Your task to perform on an android device: turn notification dots off Image 0: 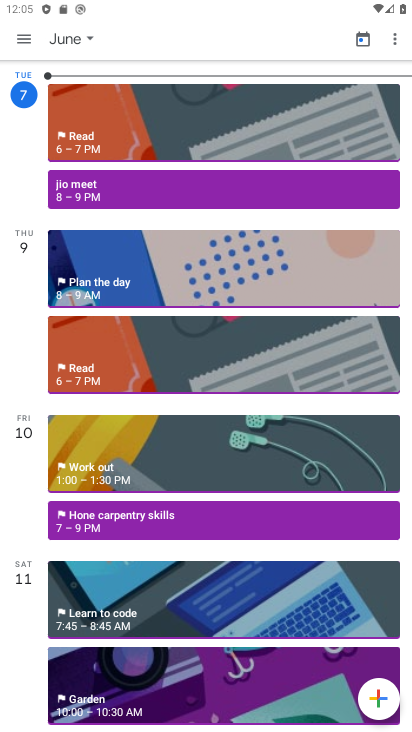
Step 0: press home button
Your task to perform on an android device: turn notification dots off Image 1: 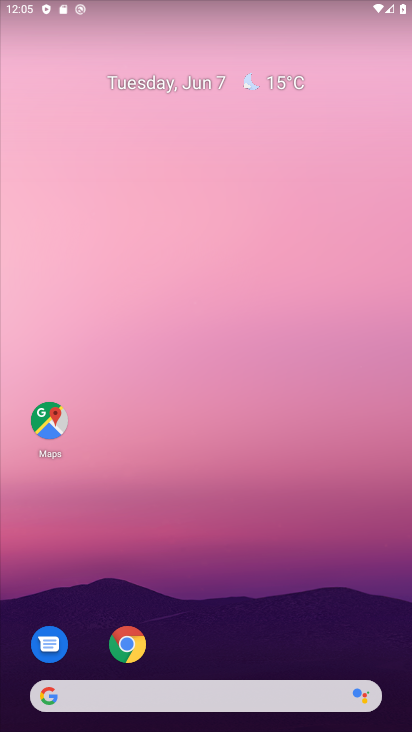
Step 1: drag from (296, 604) to (209, 188)
Your task to perform on an android device: turn notification dots off Image 2: 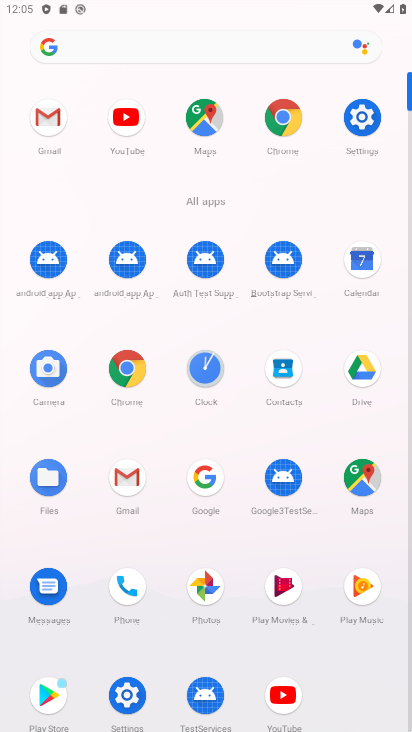
Step 2: click (351, 120)
Your task to perform on an android device: turn notification dots off Image 3: 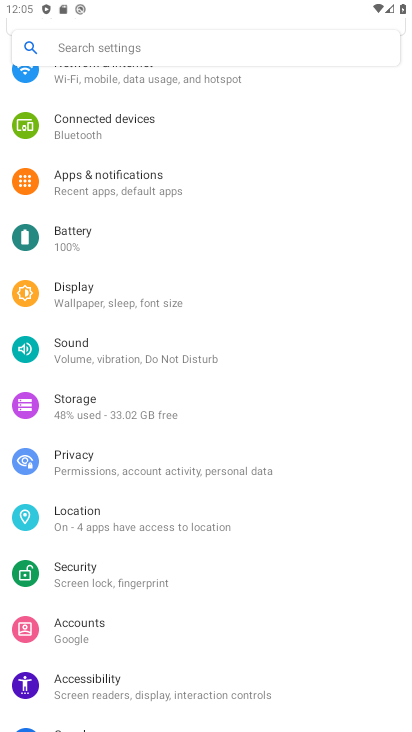
Step 3: click (146, 194)
Your task to perform on an android device: turn notification dots off Image 4: 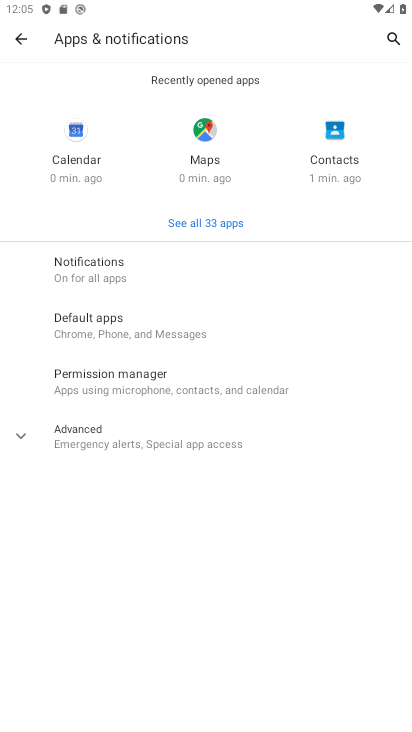
Step 4: click (95, 263)
Your task to perform on an android device: turn notification dots off Image 5: 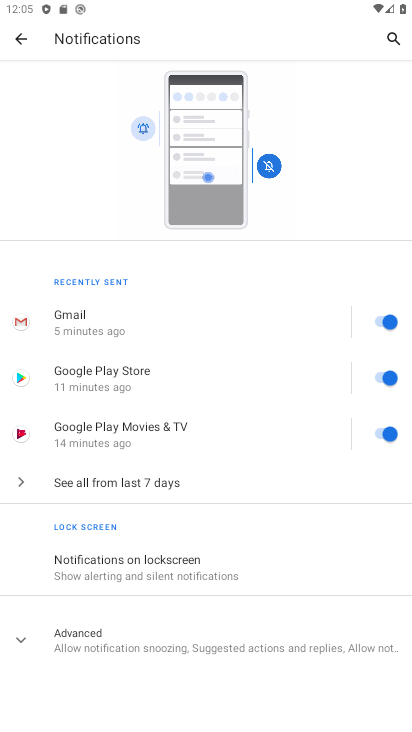
Step 5: click (223, 646)
Your task to perform on an android device: turn notification dots off Image 6: 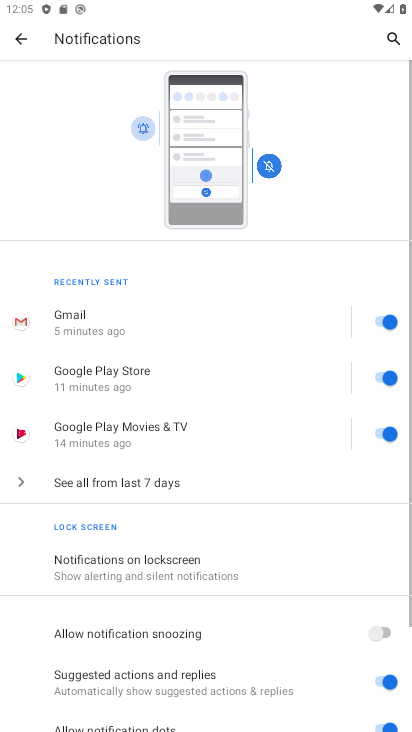
Step 6: drag from (223, 628) to (227, 217)
Your task to perform on an android device: turn notification dots off Image 7: 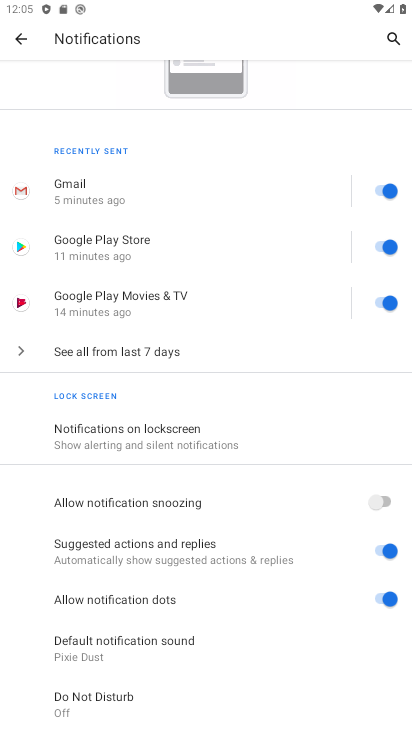
Step 7: click (381, 598)
Your task to perform on an android device: turn notification dots off Image 8: 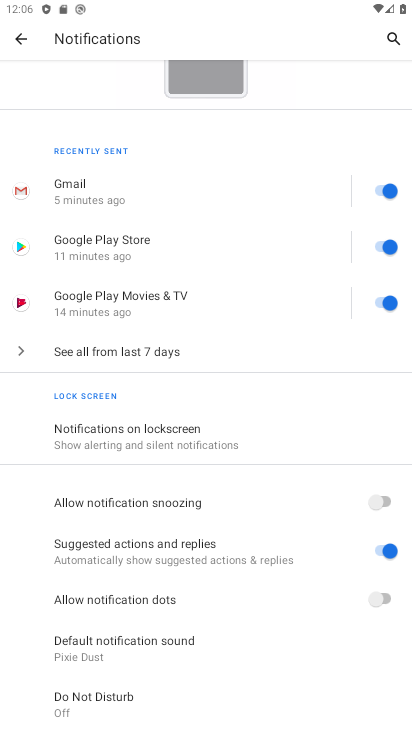
Step 8: task complete